Your task to perform on an android device: move an email to a new category in the gmail app Image 0: 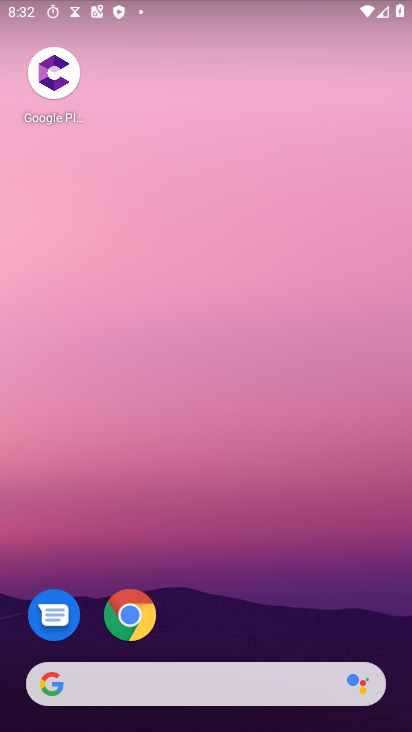
Step 0: drag from (192, 637) to (248, 151)
Your task to perform on an android device: move an email to a new category in the gmail app Image 1: 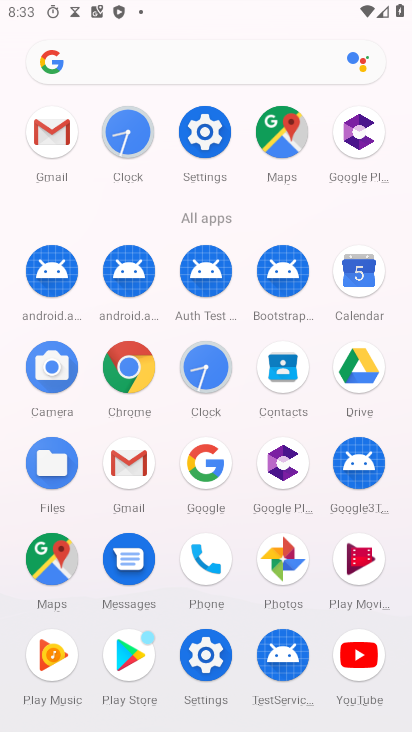
Step 1: click (133, 450)
Your task to perform on an android device: move an email to a new category in the gmail app Image 2: 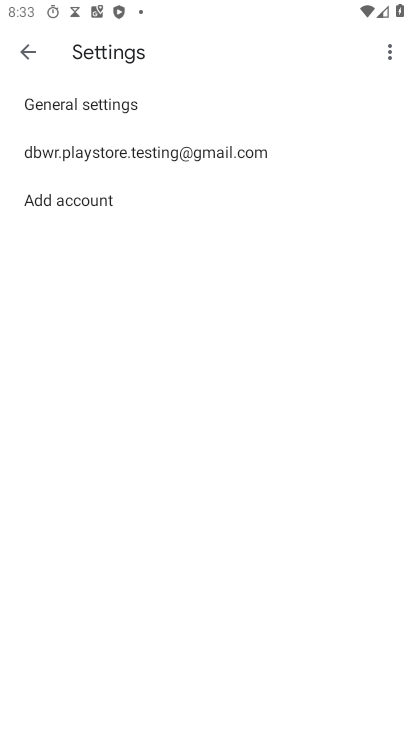
Step 2: click (29, 52)
Your task to perform on an android device: move an email to a new category in the gmail app Image 3: 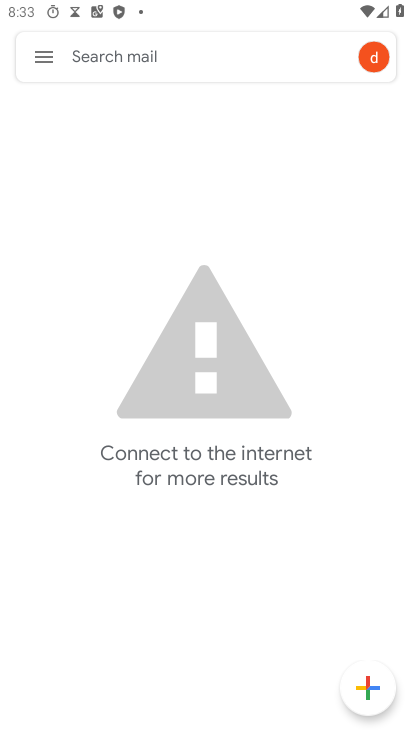
Step 3: click (48, 63)
Your task to perform on an android device: move an email to a new category in the gmail app Image 4: 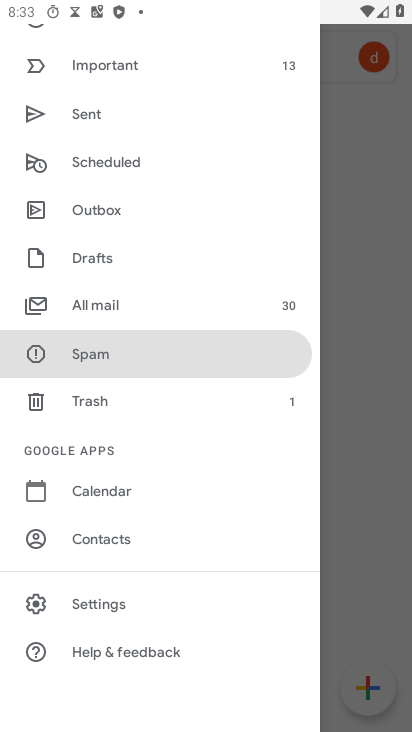
Step 4: click (115, 309)
Your task to perform on an android device: move an email to a new category in the gmail app Image 5: 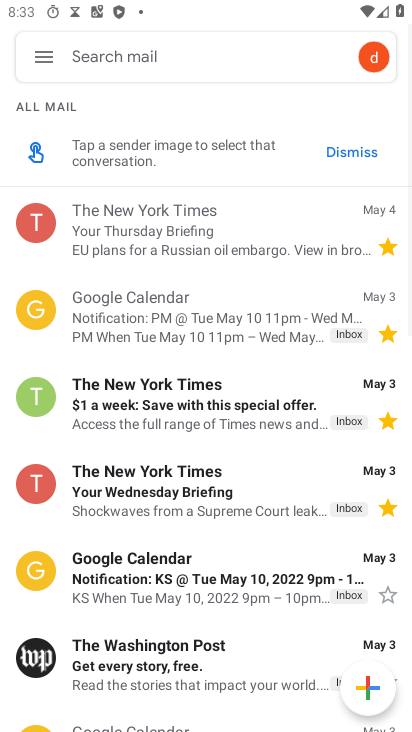
Step 5: click (37, 304)
Your task to perform on an android device: move an email to a new category in the gmail app Image 6: 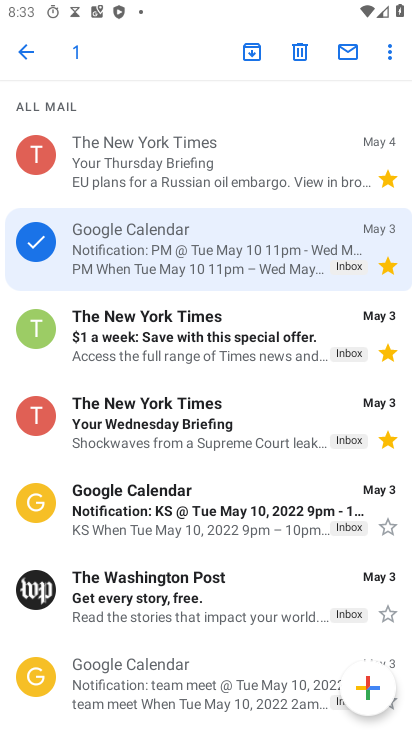
Step 6: click (382, 53)
Your task to perform on an android device: move an email to a new category in the gmail app Image 7: 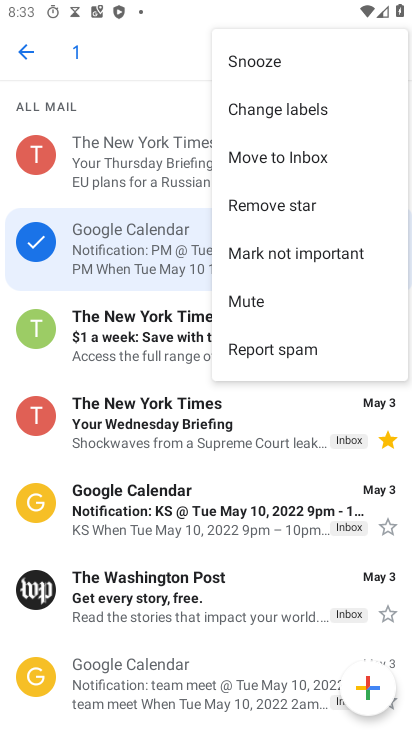
Step 7: click (309, 111)
Your task to perform on an android device: move an email to a new category in the gmail app Image 8: 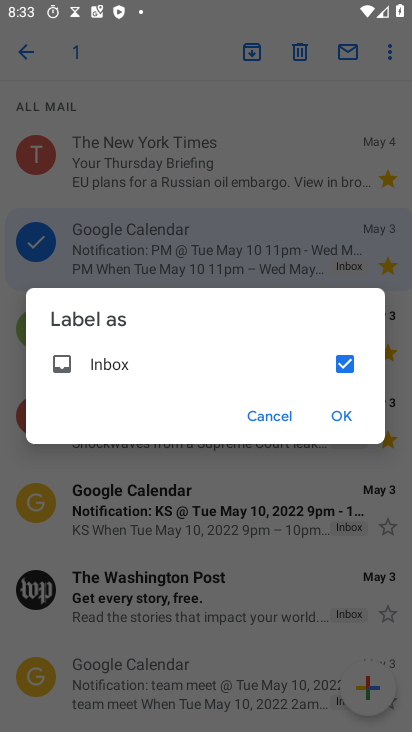
Step 8: click (345, 362)
Your task to perform on an android device: move an email to a new category in the gmail app Image 9: 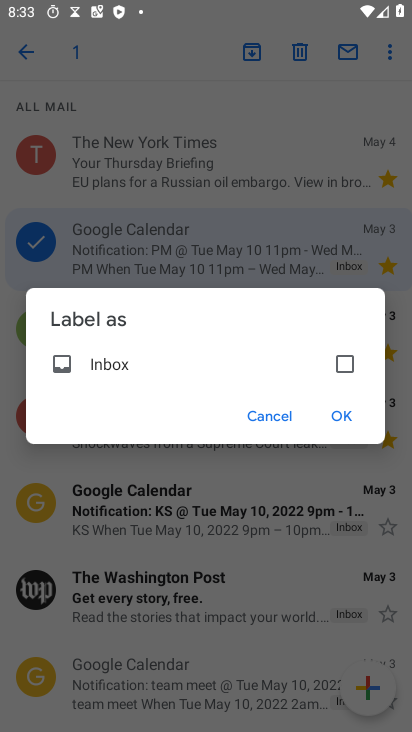
Step 9: click (346, 414)
Your task to perform on an android device: move an email to a new category in the gmail app Image 10: 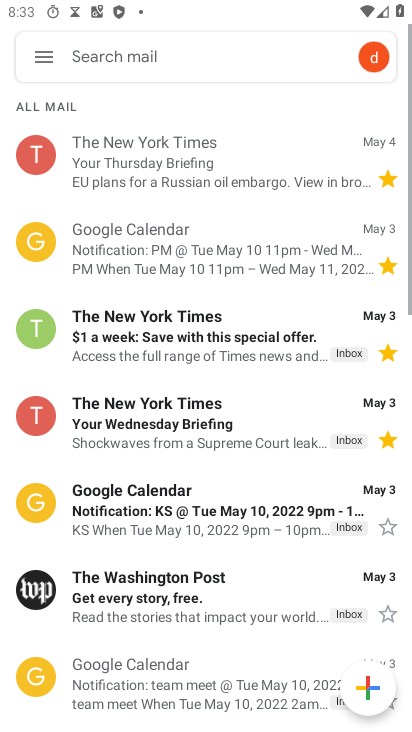
Step 10: task complete